Your task to perform on an android device: delete a single message in the gmail app Image 0: 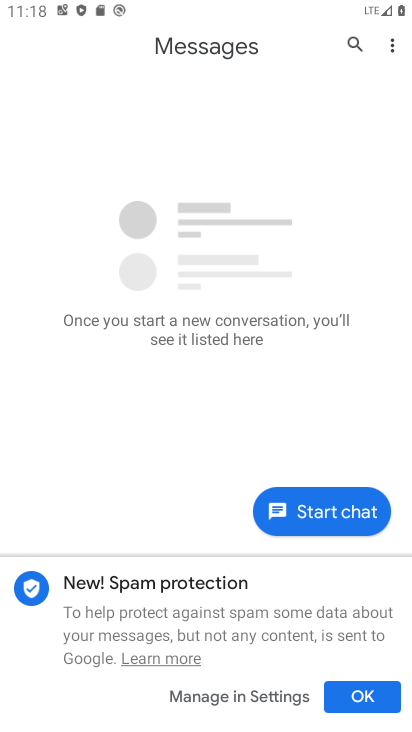
Step 0: press home button
Your task to perform on an android device: delete a single message in the gmail app Image 1: 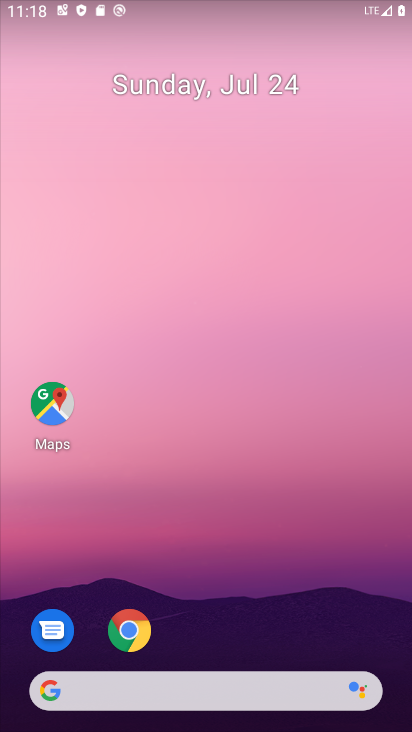
Step 1: drag from (224, 638) to (217, 162)
Your task to perform on an android device: delete a single message in the gmail app Image 2: 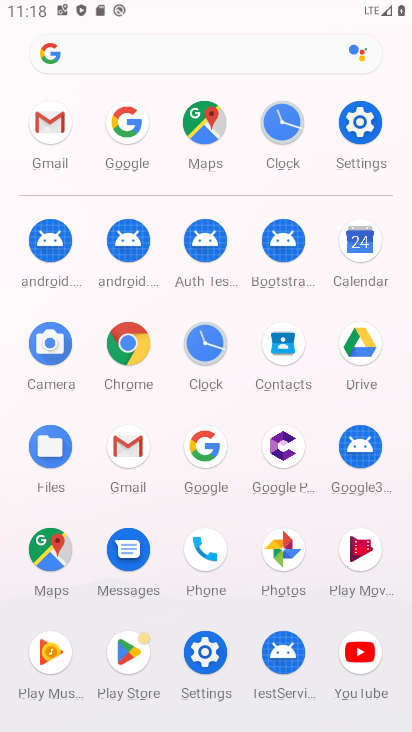
Step 2: click (58, 134)
Your task to perform on an android device: delete a single message in the gmail app Image 3: 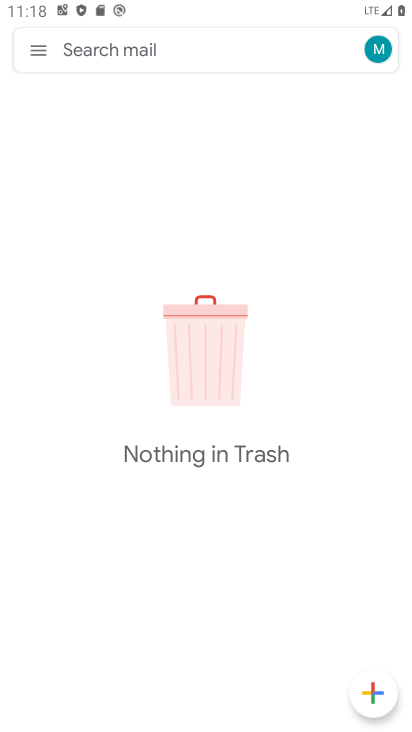
Step 3: click (31, 71)
Your task to perform on an android device: delete a single message in the gmail app Image 4: 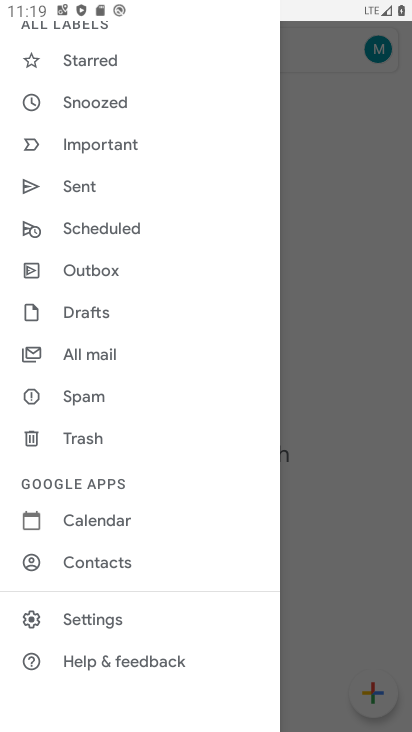
Step 4: click (88, 352)
Your task to perform on an android device: delete a single message in the gmail app Image 5: 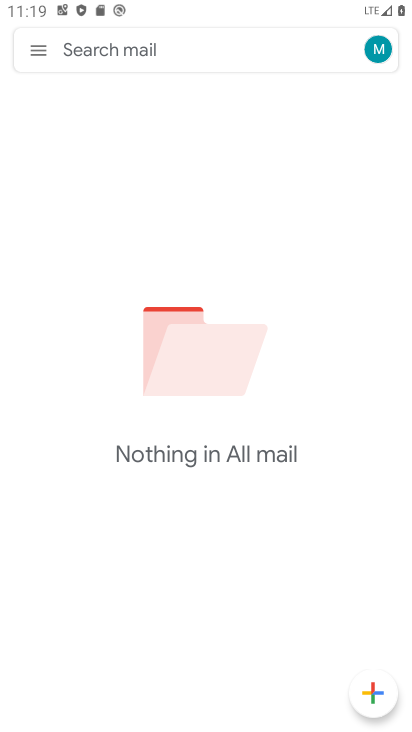
Step 5: task complete